Your task to perform on an android device: Open network settings Image 0: 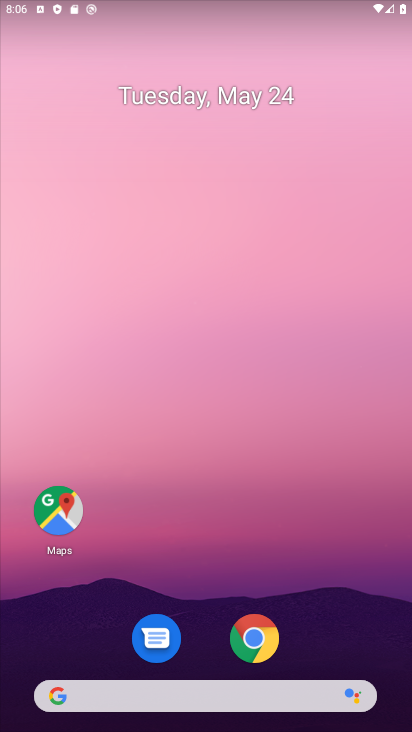
Step 0: drag from (266, 554) to (391, 149)
Your task to perform on an android device: Open network settings Image 1: 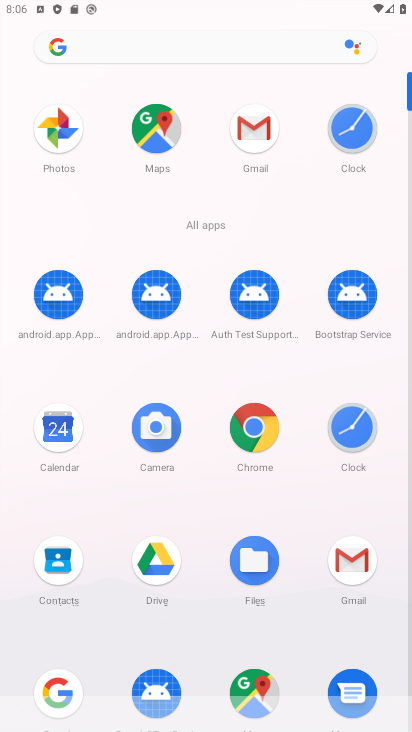
Step 1: drag from (279, 637) to (282, 600)
Your task to perform on an android device: Open network settings Image 2: 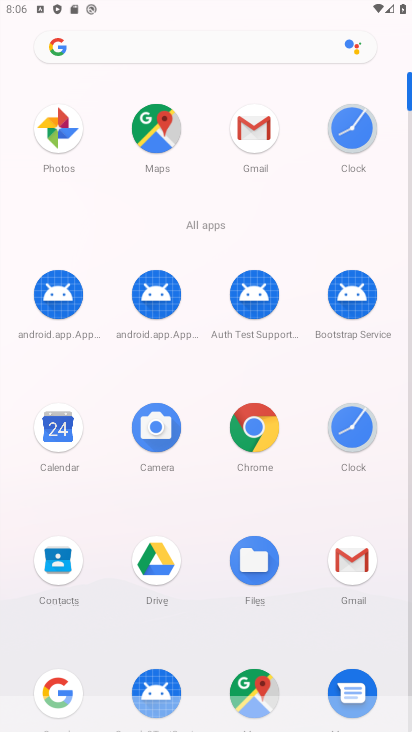
Step 2: click (343, 202)
Your task to perform on an android device: Open network settings Image 3: 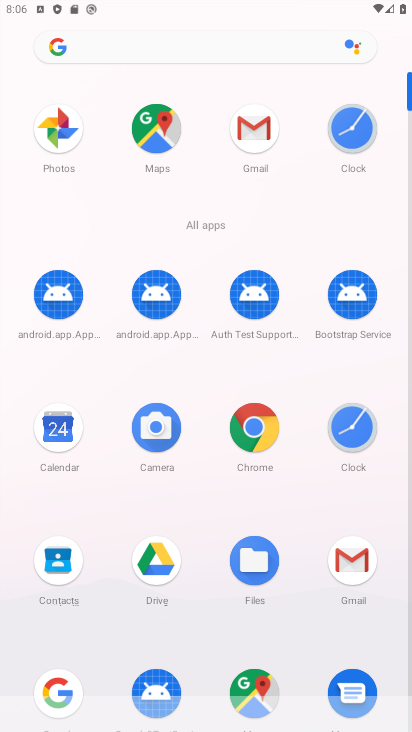
Step 3: drag from (141, 636) to (266, 169)
Your task to perform on an android device: Open network settings Image 4: 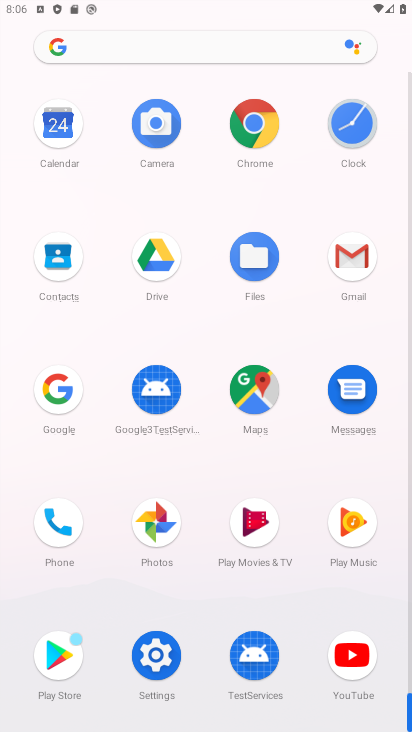
Step 4: click (154, 647)
Your task to perform on an android device: Open network settings Image 5: 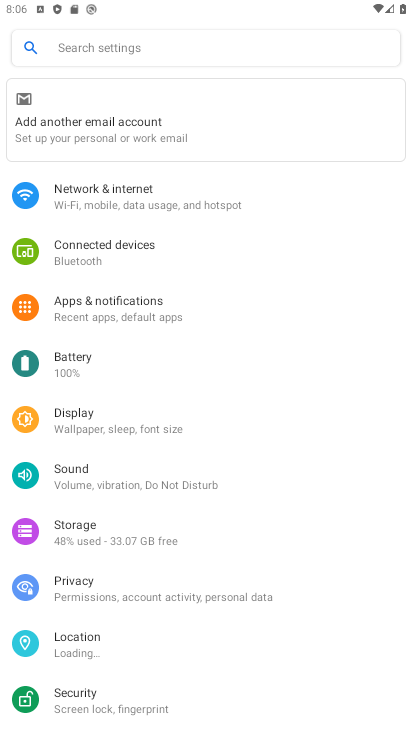
Step 5: click (253, 189)
Your task to perform on an android device: Open network settings Image 6: 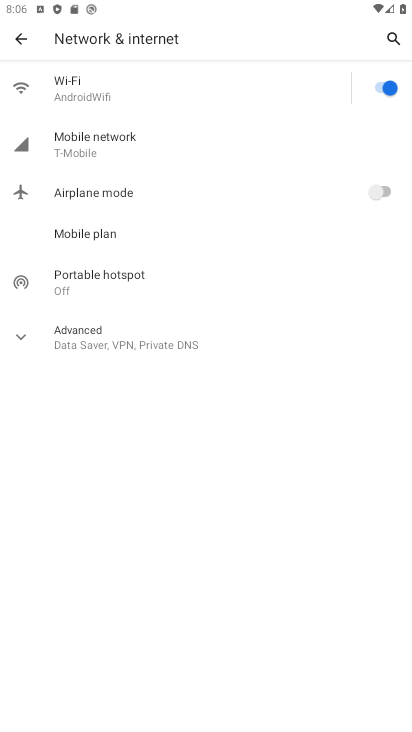
Step 6: task complete